Your task to perform on an android device: What is the news today? Image 0: 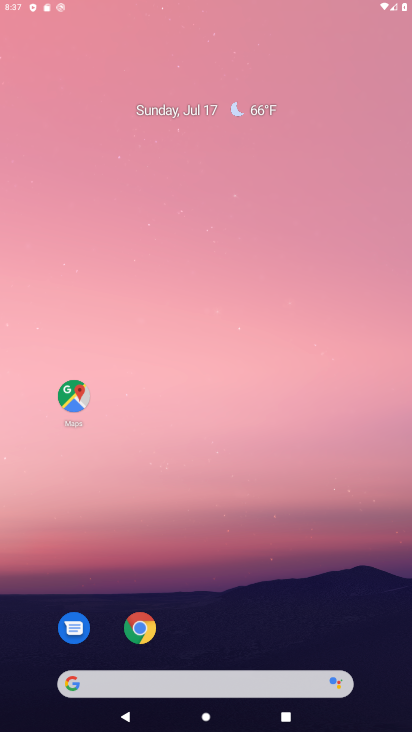
Step 0: press home button
Your task to perform on an android device: What is the news today? Image 1: 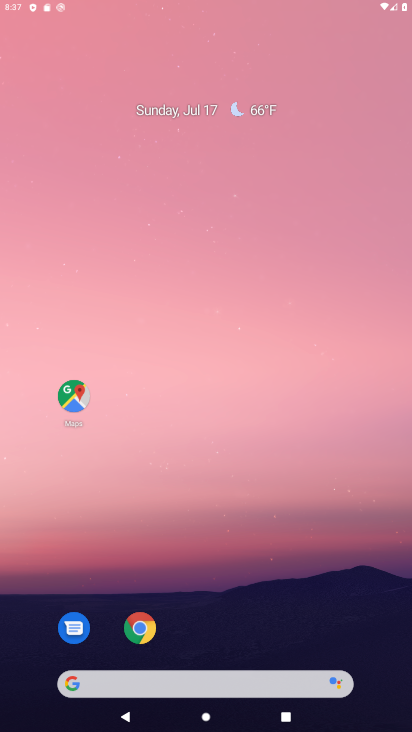
Step 1: click (189, 1)
Your task to perform on an android device: What is the news today? Image 2: 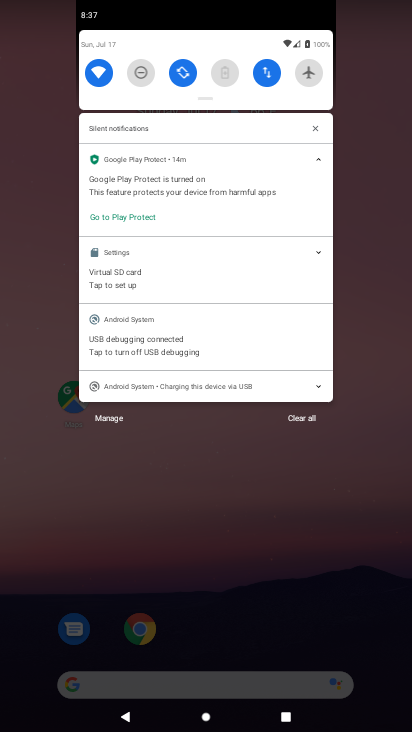
Step 2: click (232, 572)
Your task to perform on an android device: What is the news today? Image 3: 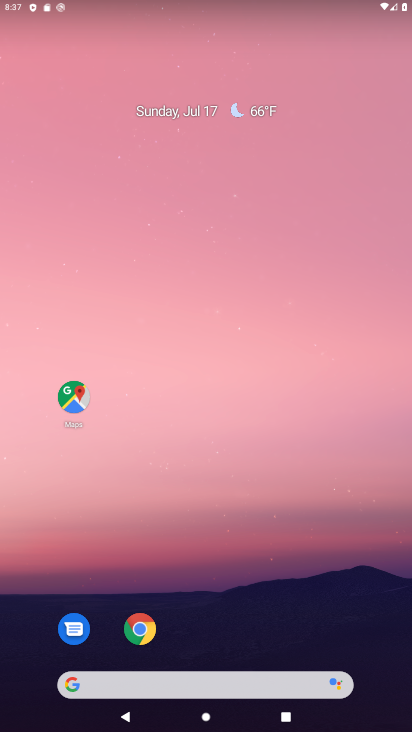
Step 3: task complete